Your task to perform on an android device: Find coffee shops on Maps Image 0: 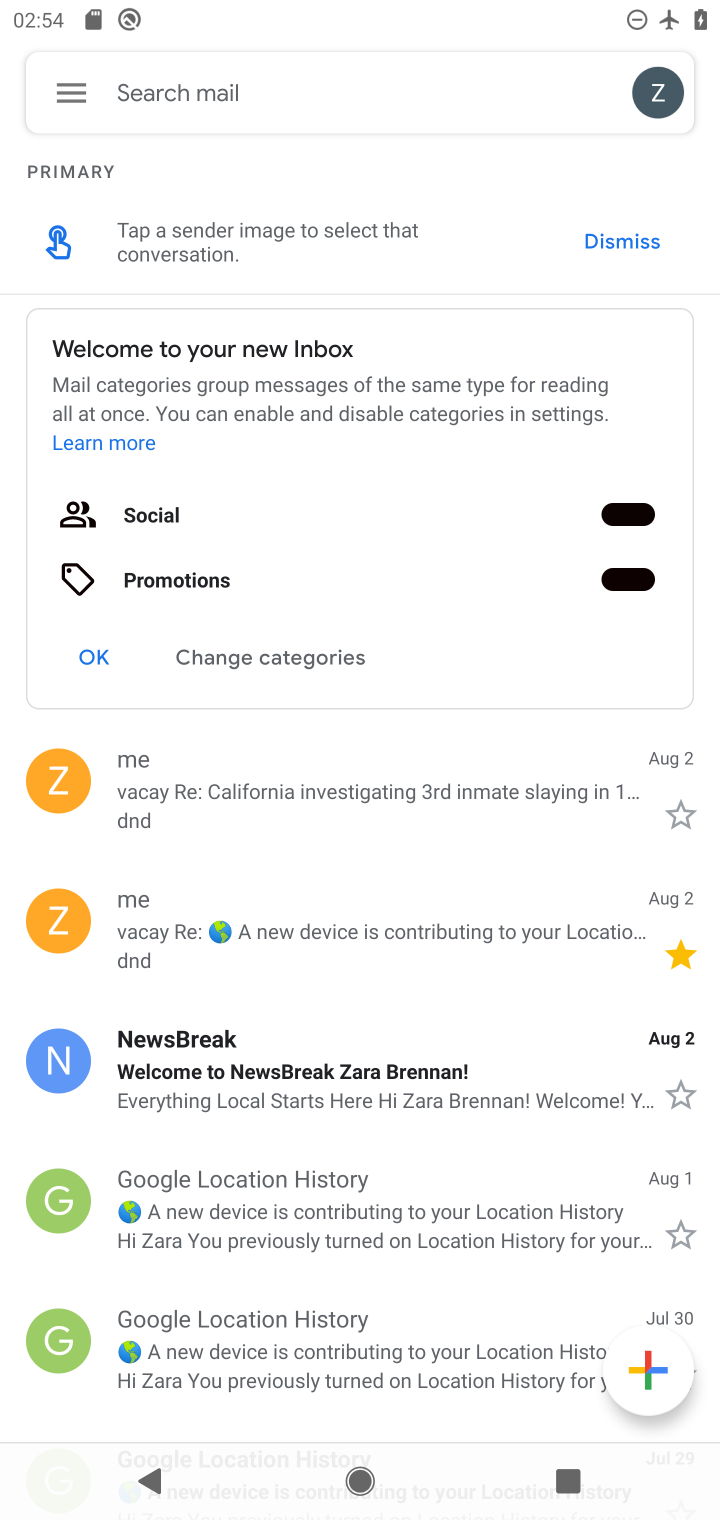
Step 0: press home button
Your task to perform on an android device: Find coffee shops on Maps Image 1: 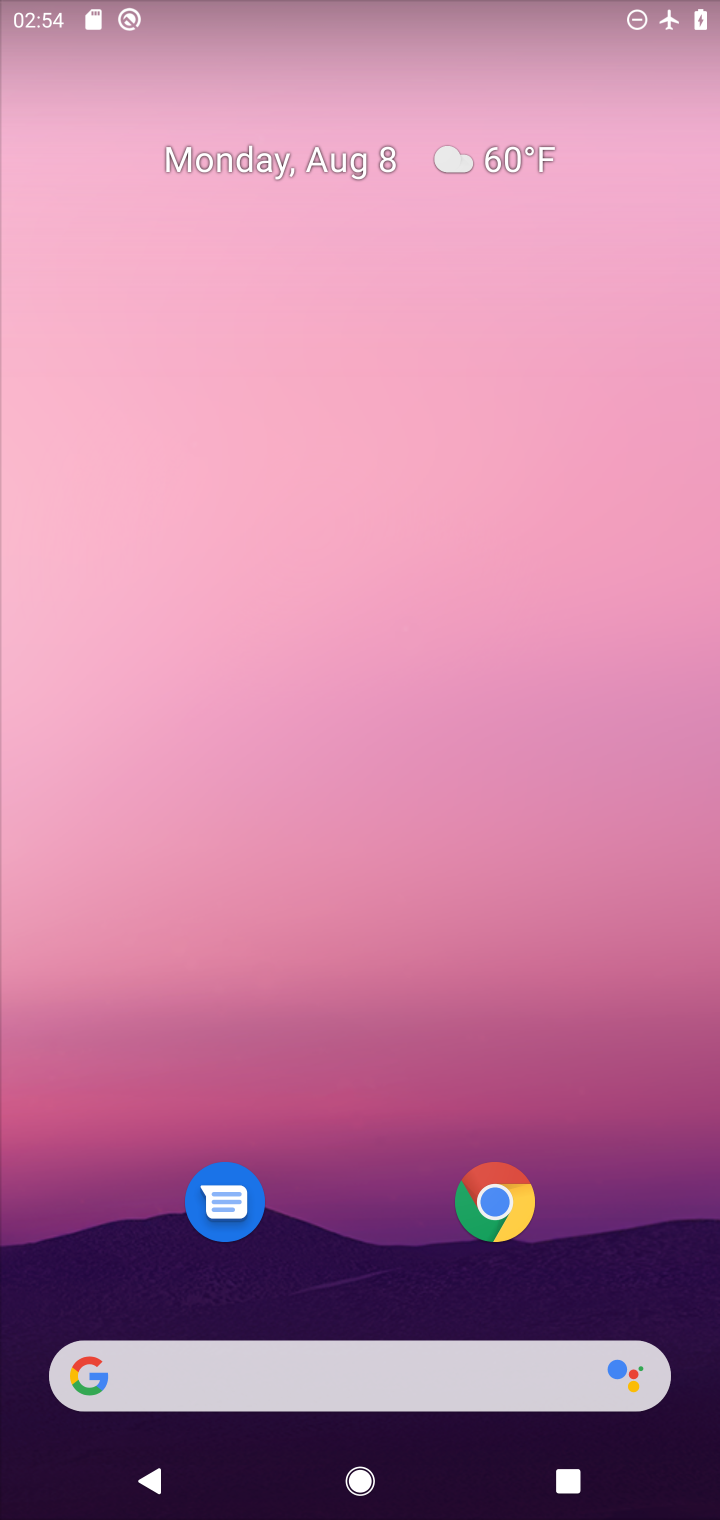
Step 1: drag from (366, 1019) to (397, 176)
Your task to perform on an android device: Find coffee shops on Maps Image 2: 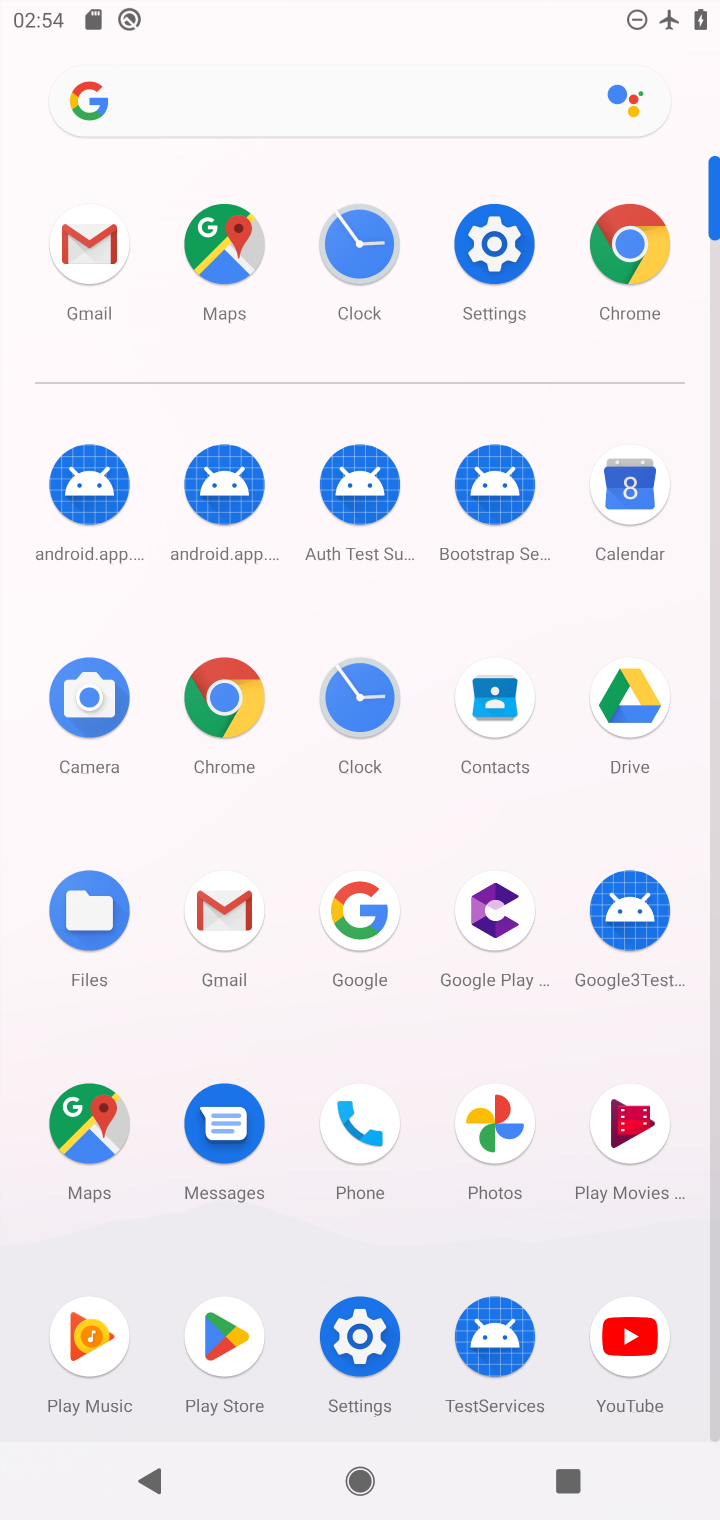
Step 2: click (81, 1119)
Your task to perform on an android device: Find coffee shops on Maps Image 3: 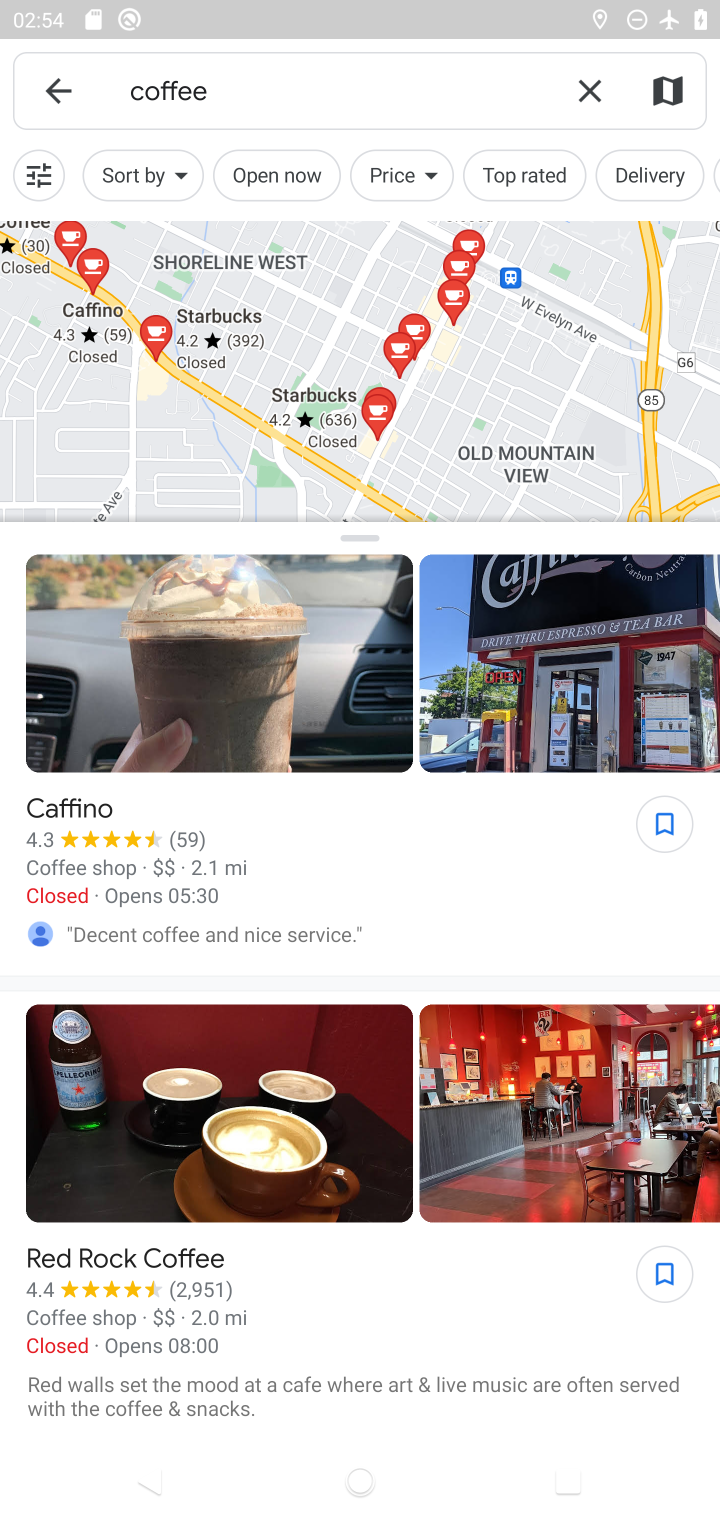
Step 3: task complete